Your task to perform on an android device: open app "Google Photos" Image 0: 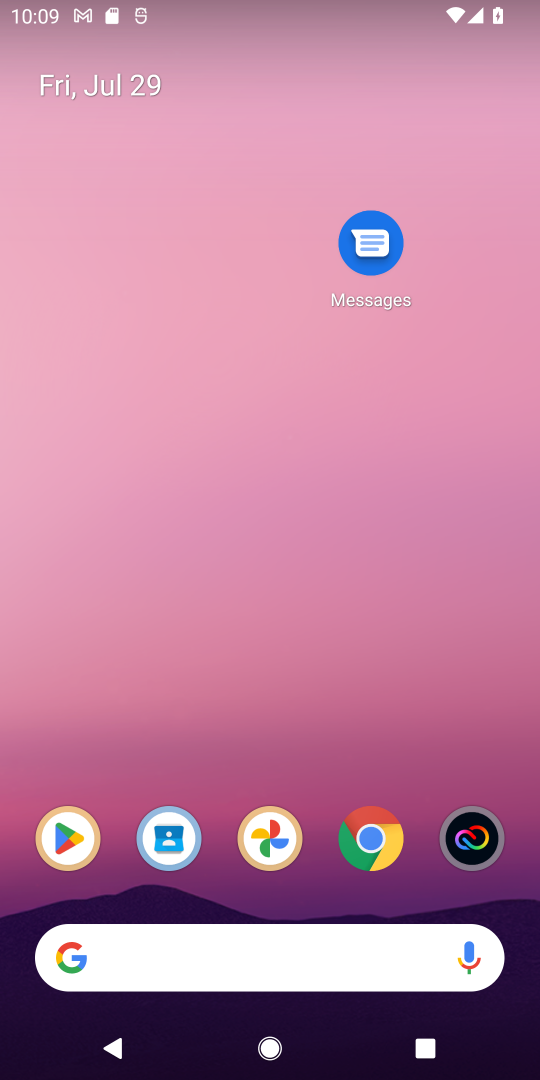
Step 0: click (69, 852)
Your task to perform on an android device: open app "Google Photos" Image 1: 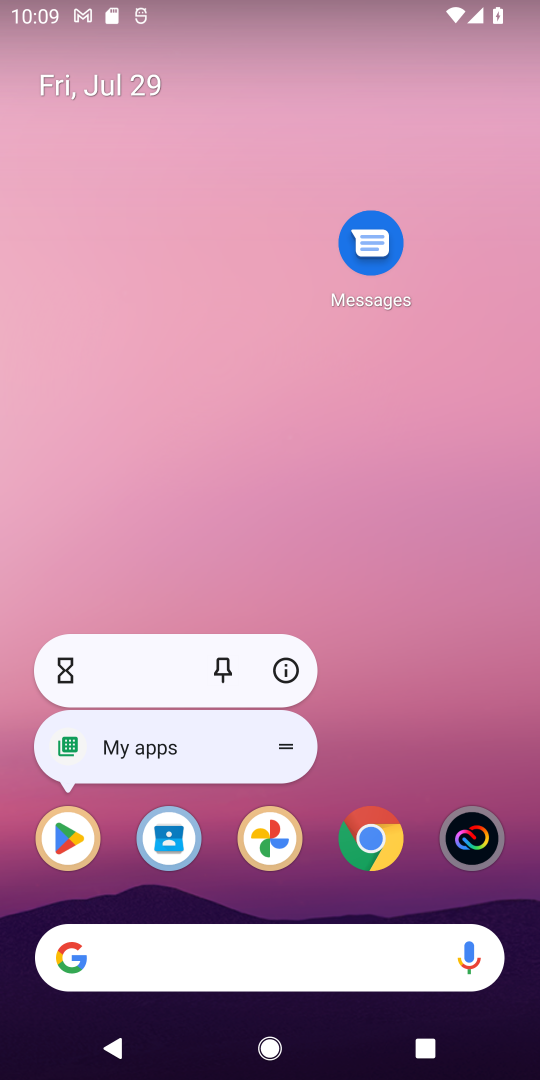
Step 1: click (60, 849)
Your task to perform on an android device: open app "Google Photos" Image 2: 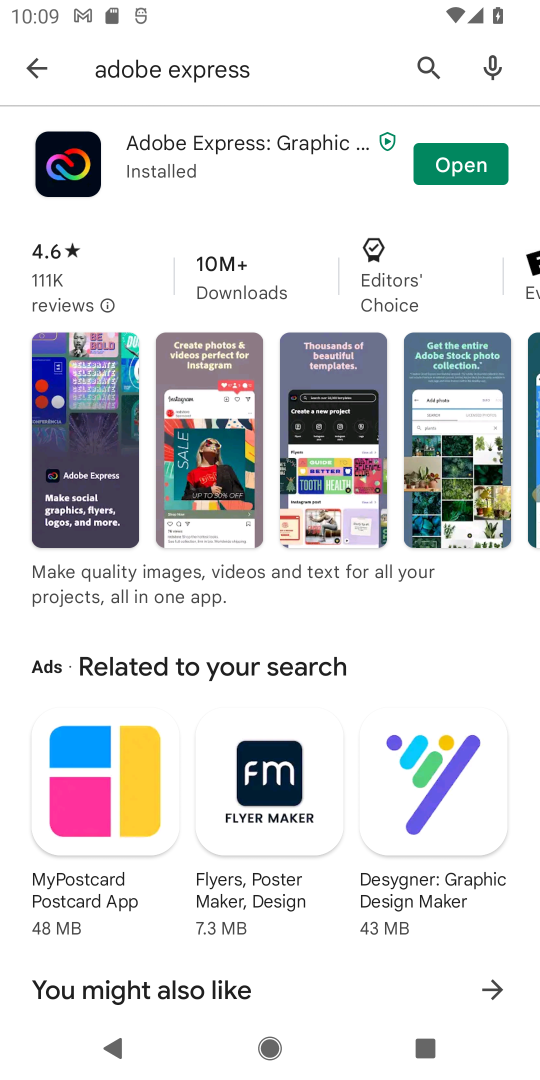
Step 2: click (259, 72)
Your task to perform on an android device: open app "Google Photos" Image 3: 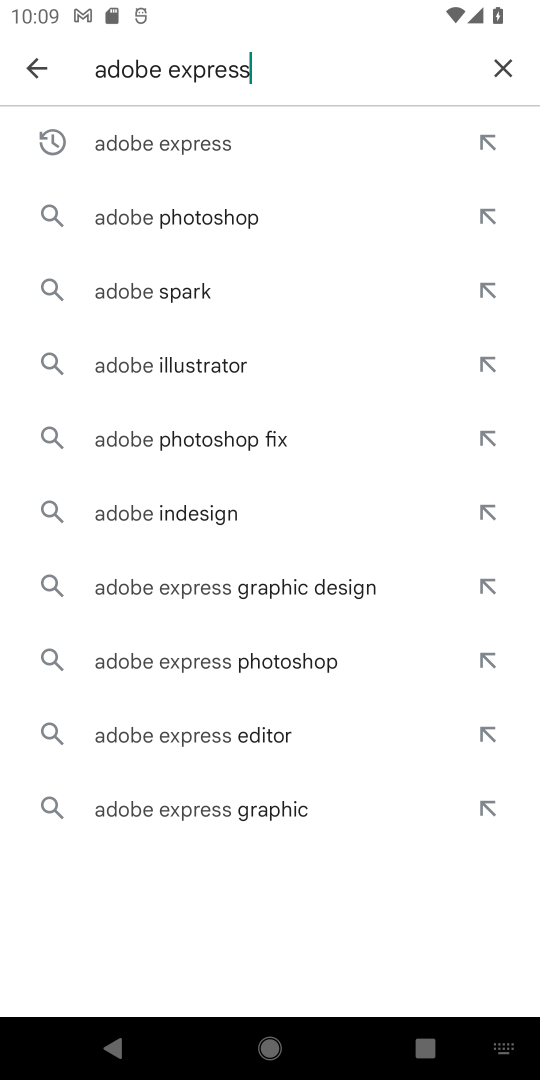
Step 3: click (504, 65)
Your task to perform on an android device: open app "Google Photos" Image 4: 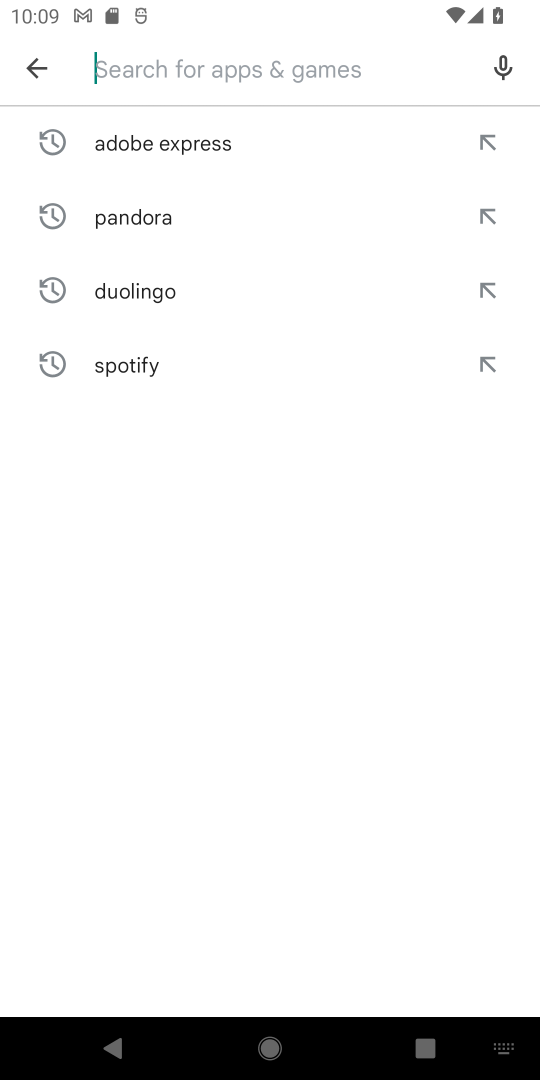
Step 4: type "google photos"
Your task to perform on an android device: open app "Google Photos" Image 5: 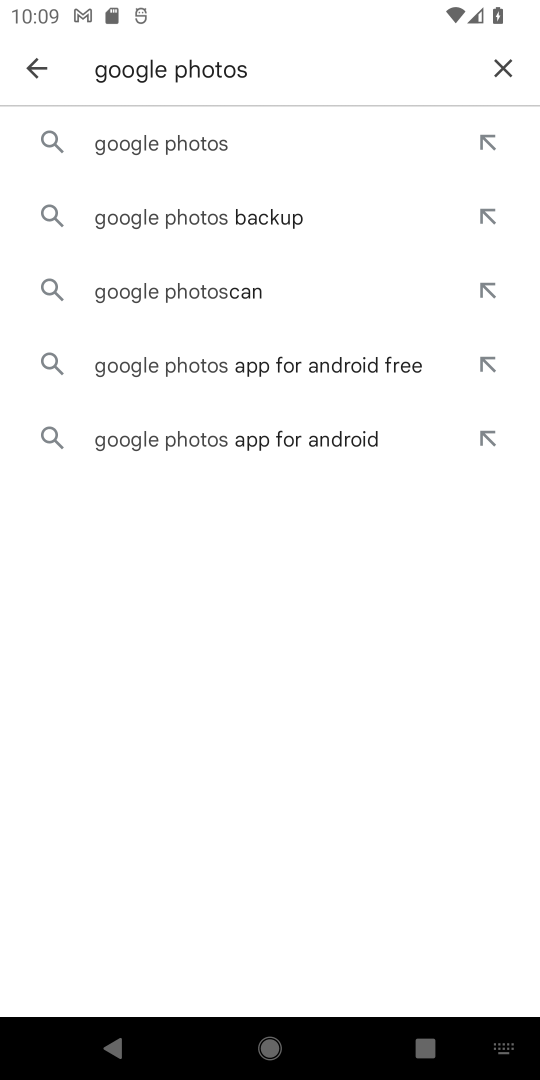
Step 5: click (196, 141)
Your task to perform on an android device: open app "Google Photos" Image 6: 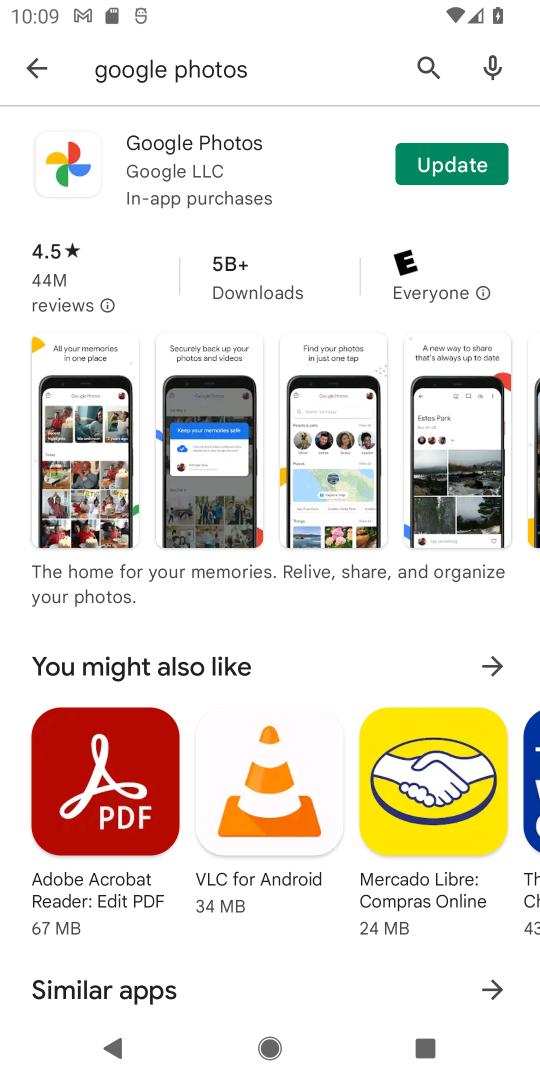
Step 6: click (489, 154)
Your task to perform on an android device: open app "Google Photos" Image 7: 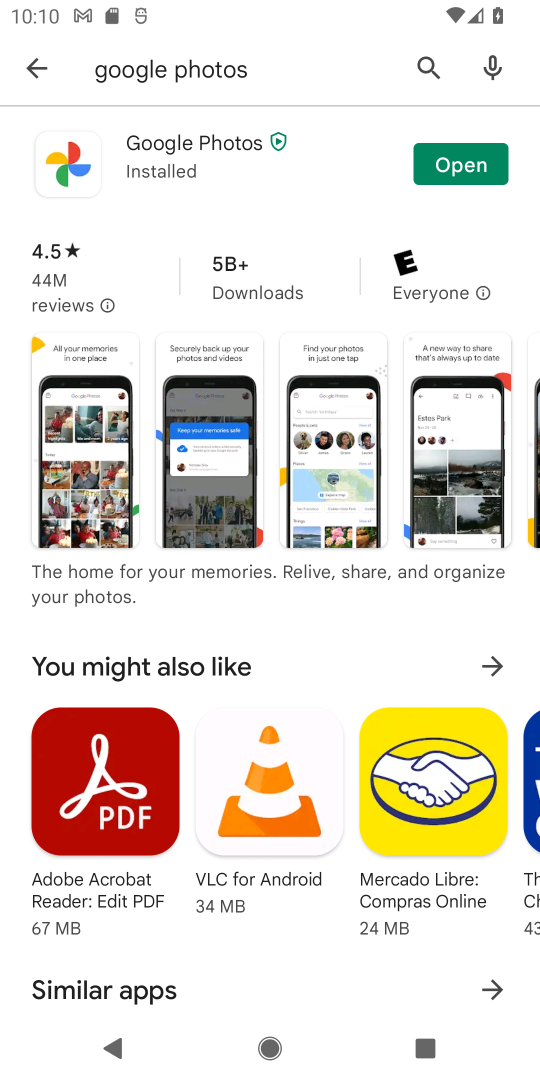
Step 7: click (471, 153)
Your task to perform on an android device: open app "Google Photos" Image 8: 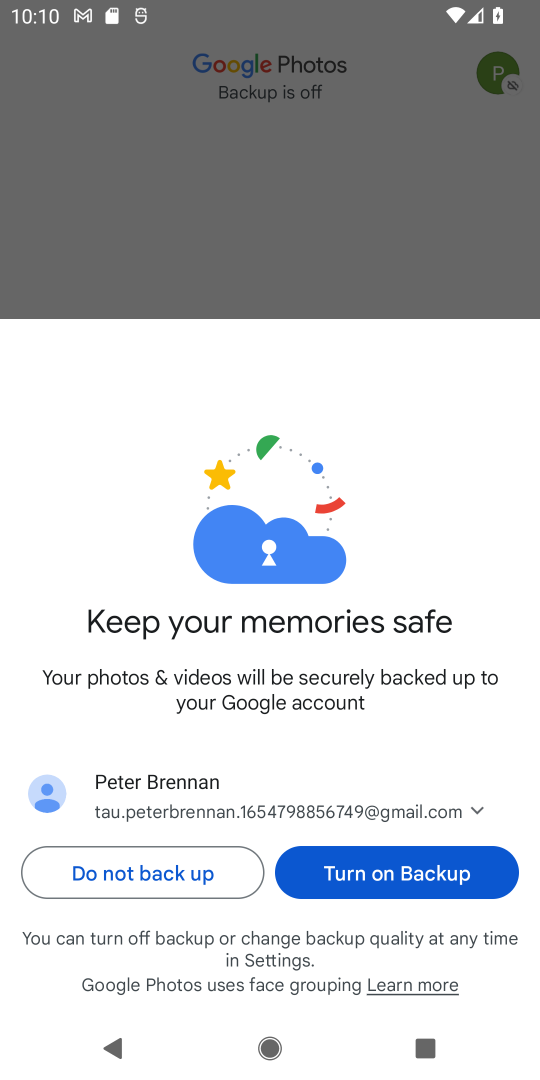
Step 8: click (168, 876)
Your task to perform on an android device: open app "Google Photos" Image 9: 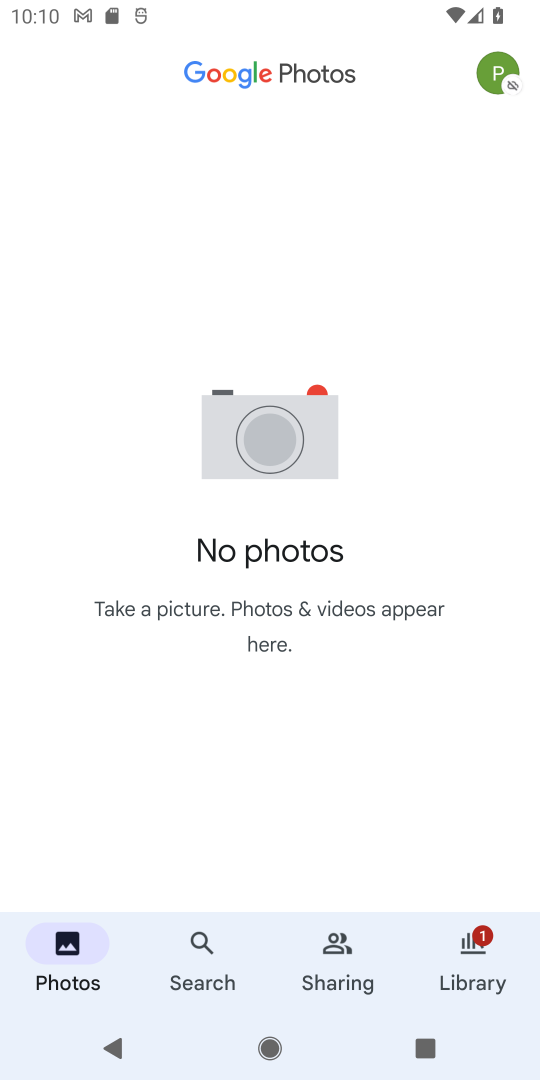
Step 9: task complete